Your task to perform on an android device: open sync settings in chrome Image 0: 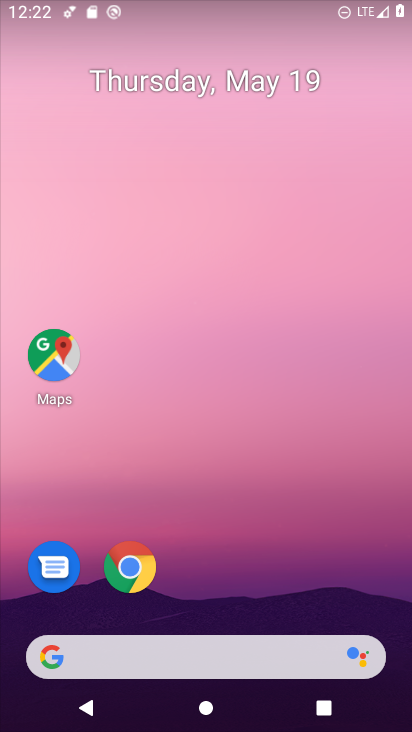
Step 0: click (134, 571)
Your task to perform on an android device: open sync settings in chrome Image 1: 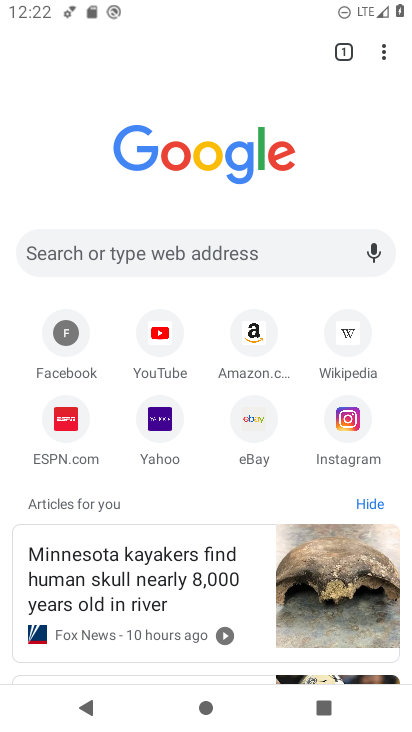
Step 1: click (385, 51)
Your task to perform on an android device: open sync settings in chrome Image 2: 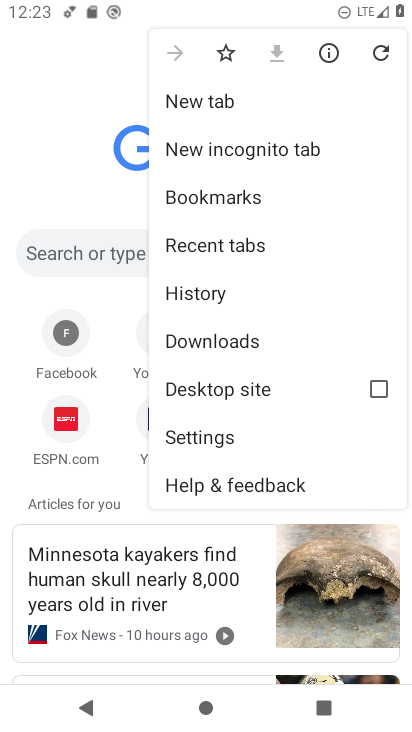
Step 2: click (215, 437)
Your task to perform on an android device: open sync settings in chrome Image 3: 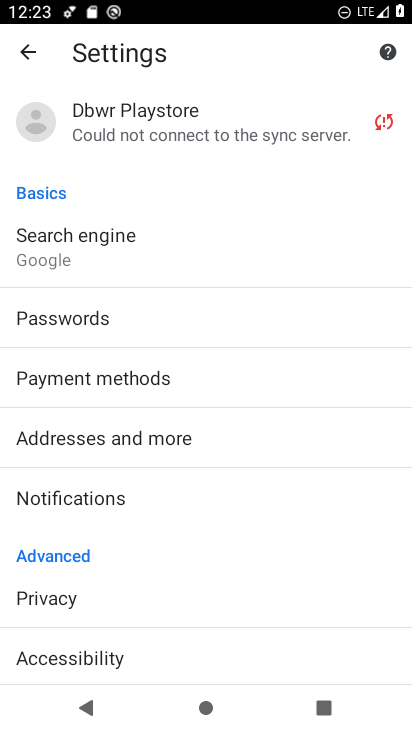
Step 3: click (194, 123)
Your task to perform on an android device: open sync settings in chrome Image 4: 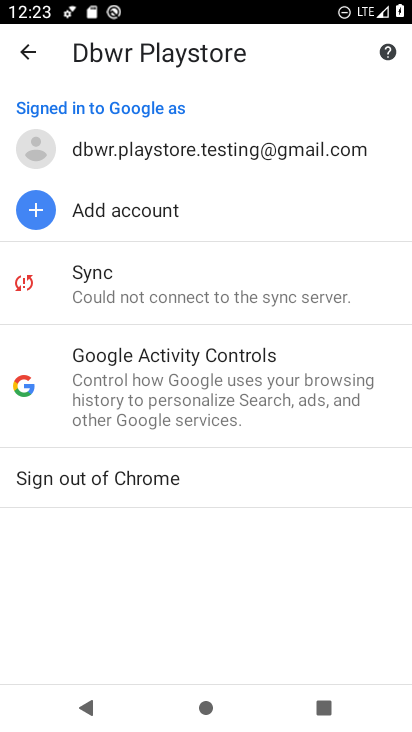
Step 4: click (164, 272)
Your task to perform on an android device: open sync settings in chrome Image 5: 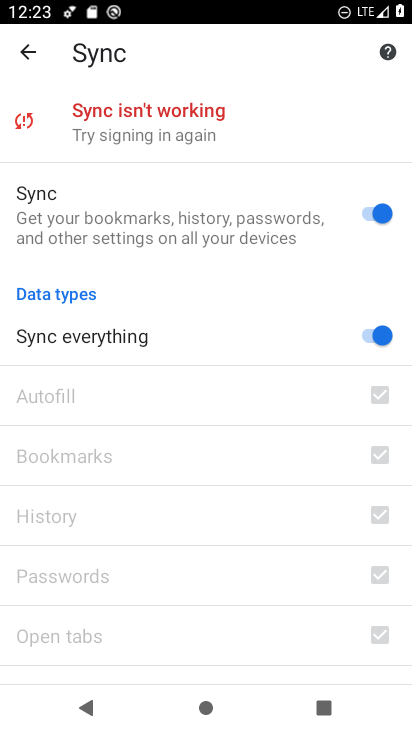
Step 5: task complete